Your task to perform on an android device: allow notifications from all sites in the chrome app Image 0: 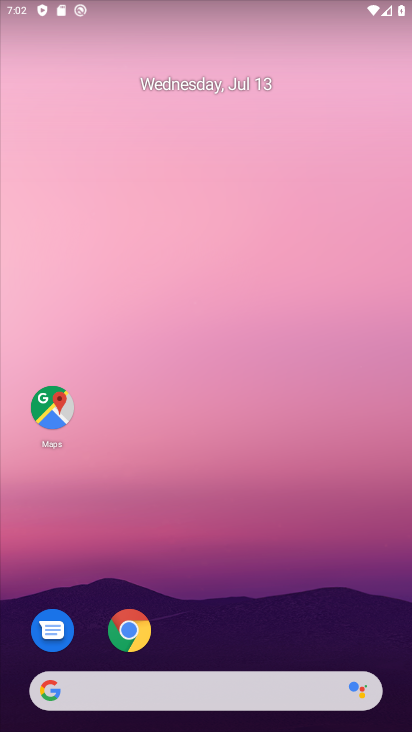
Step 0: drag from (253, 683) to (339, 137)
Your task to perform on an android device: allow notifications from all sites in the chrome app Image 1: 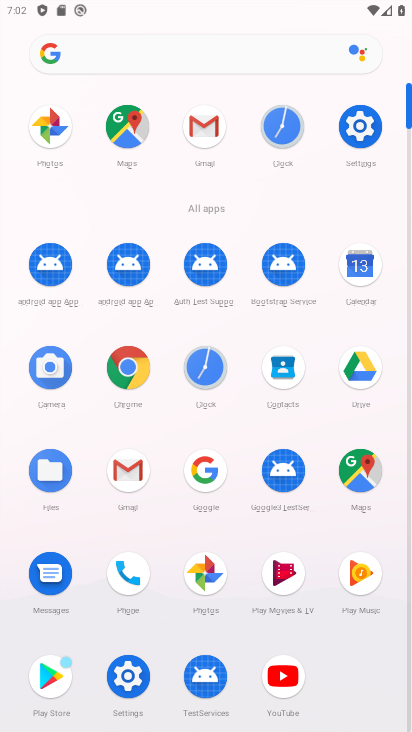
Step 1: click (131, 371)
Your task to perform on an android device: allow notifications from all sites in the chrome app Image 2: 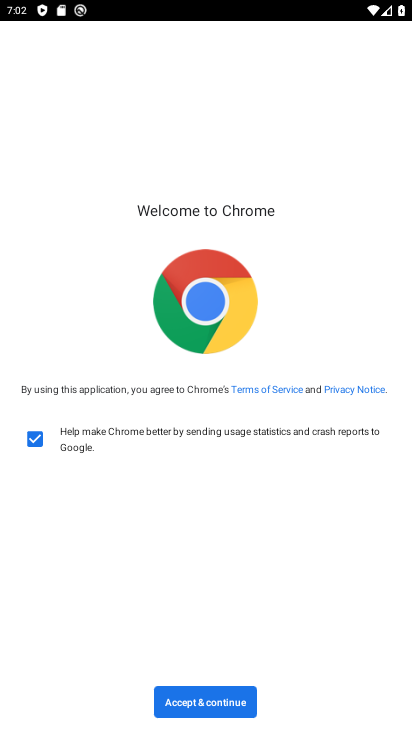
Step 2: click (200, 704)
Your task to perform on an android device: allow notifications from all sites in the chrome app Image 3: 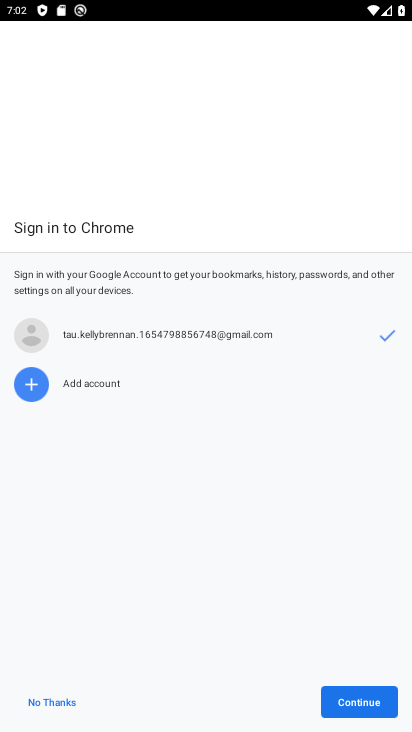
Step 3: click (350, 708)
Your task to perform on an android device: allow notifications from all sites in the chrome app Image 4: 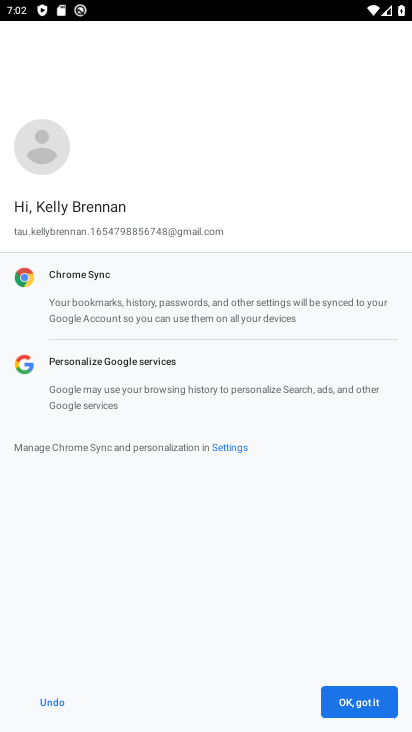
Step 4: click (350, 708)
Your task to perform on an android device: allow notifications from all sites in the chrome app Image 5: 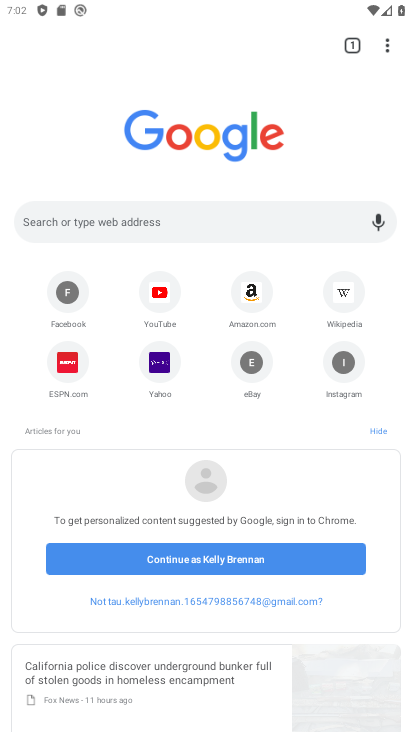
Step 5: click (389, 45)
Your task to perform on an android device: allow notifications from all sites in the chrome app Image 6: 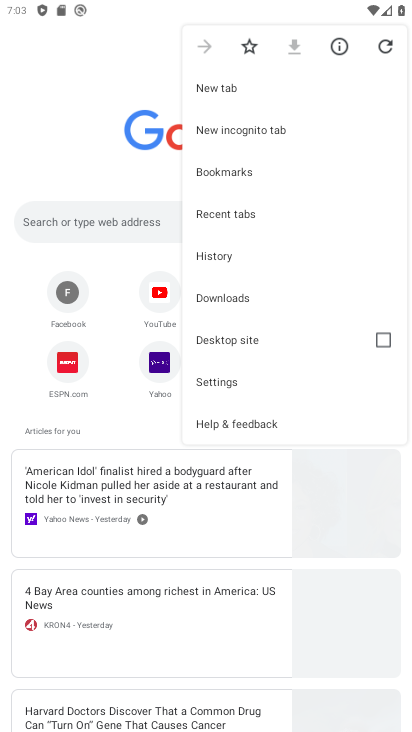
Step 6: click (223, 378)
Your task to perform on an android device: allow notifications from all sites in the chrome app Image 7: 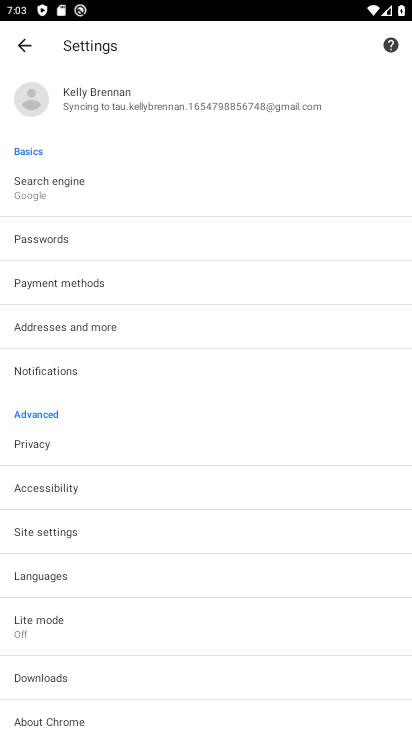
Step 7: click (42, 531)
Your task to perform on an android device: allow notifications from all sites in the chrome app Image 8: 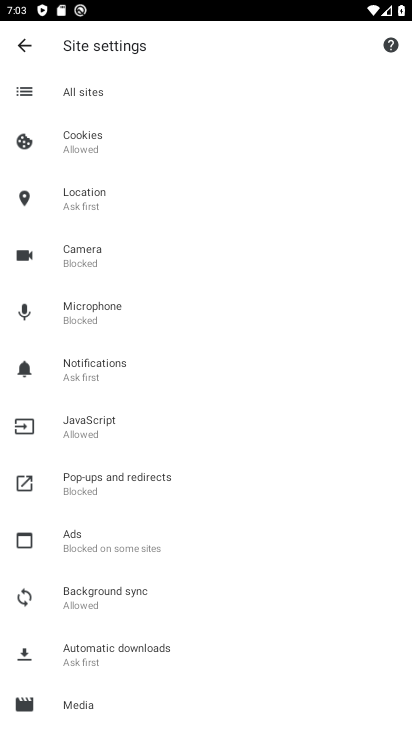
Step 8: click (102, 361)
Your task to perform on an android device: allow notifications from all sites in the chrome app Image 9: 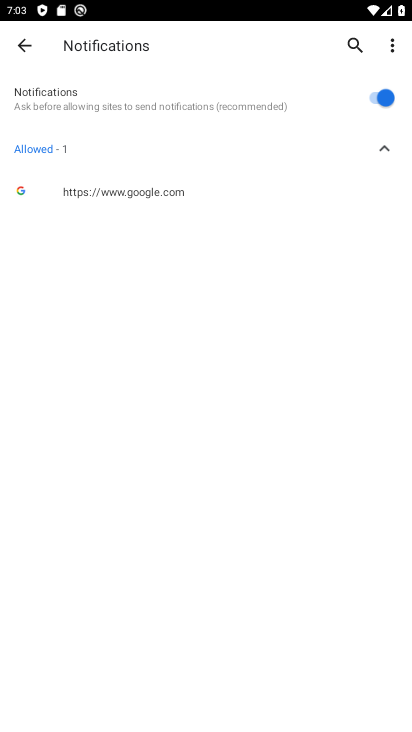
Step 9: click (391, 87)
Your task to perform on an android device: allow notifications from all sites in the chrome app Image 10: 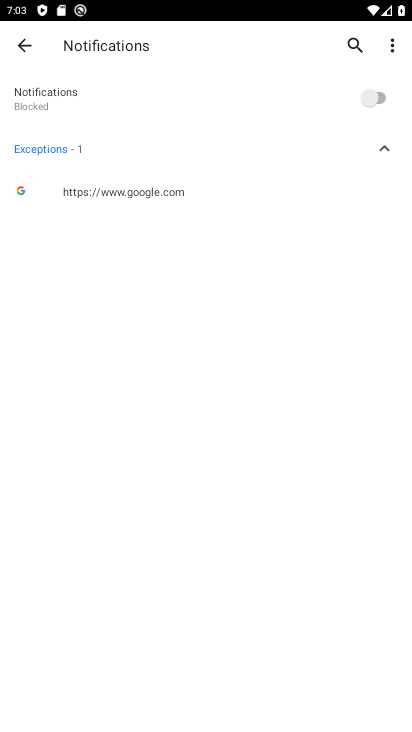
Step 10: click (383, 102)
Your task to perform on an android device: allow notifications from all sites in the chrome app Image 11: 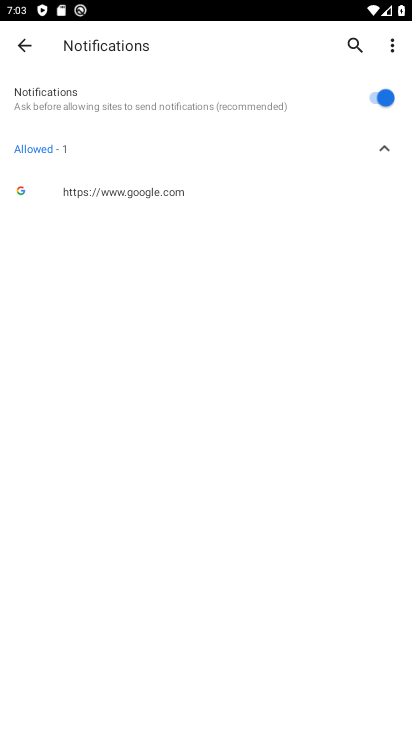
Step 11: task complete